Your task to perform on an android device: open app "Pinterest" (install if not already installed) Image 0: 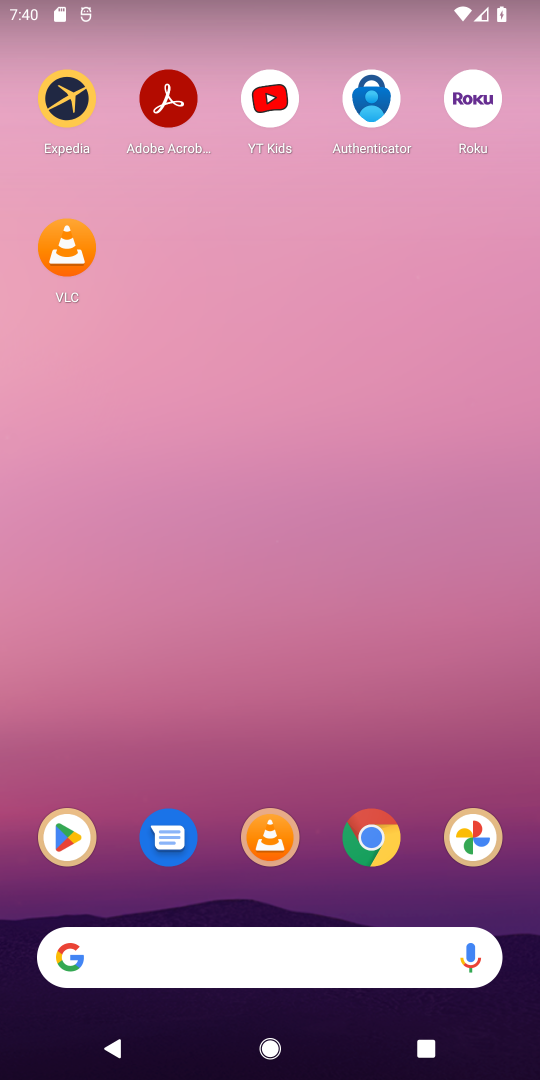
Step 0: click (66, 822)
Your task to perform on an android device: open app "Pinterest" (install if not already installed) Image 1: 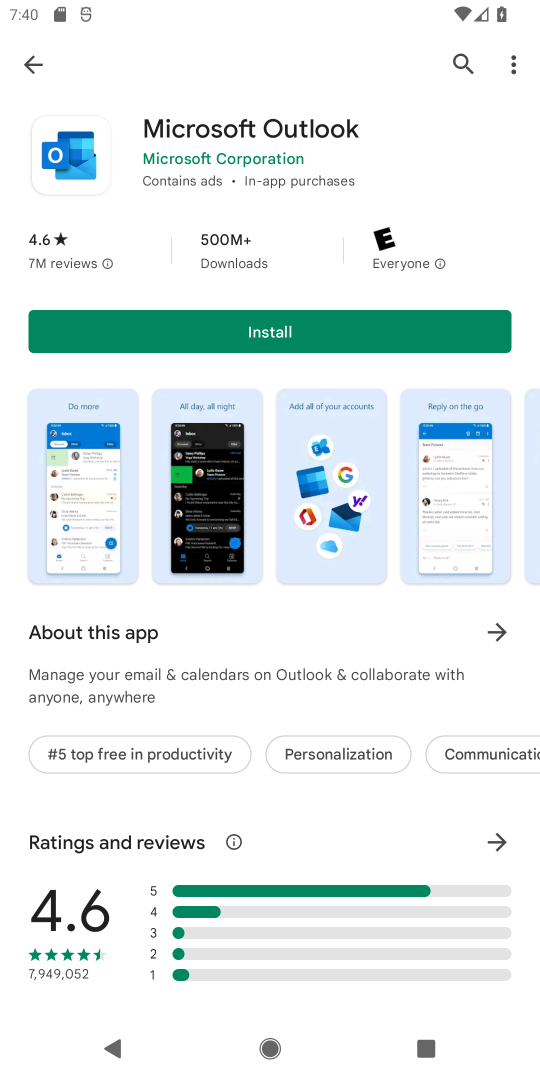
Step 1: click (462, 69)
Your task to perform on an android device: open app "Pinterest" (install if not already installed) Image 2: 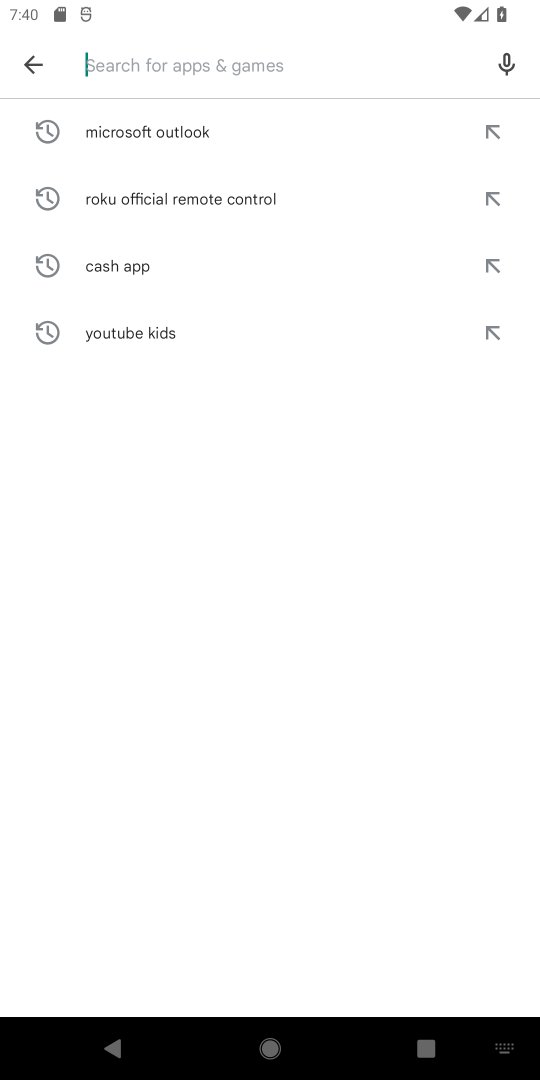
Step 2: type "pinterest"
Your task to perform on an android device: open app "Pinterest" (install if not already installed) Image 3: 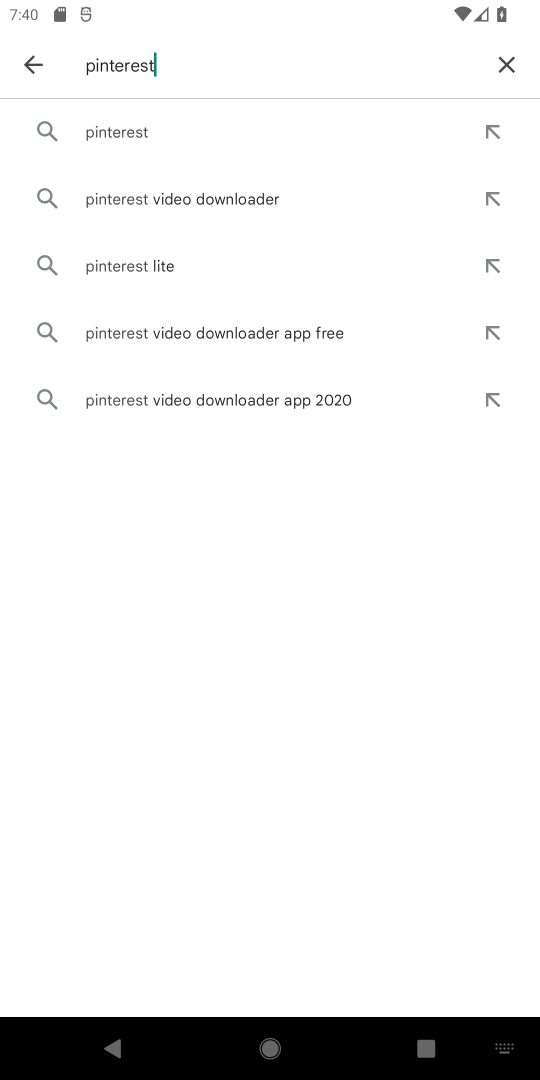
Step 3: click (124, 135)
Your task to perform on an android device: open app "Pinterest" (install if not already installed) Image 4: 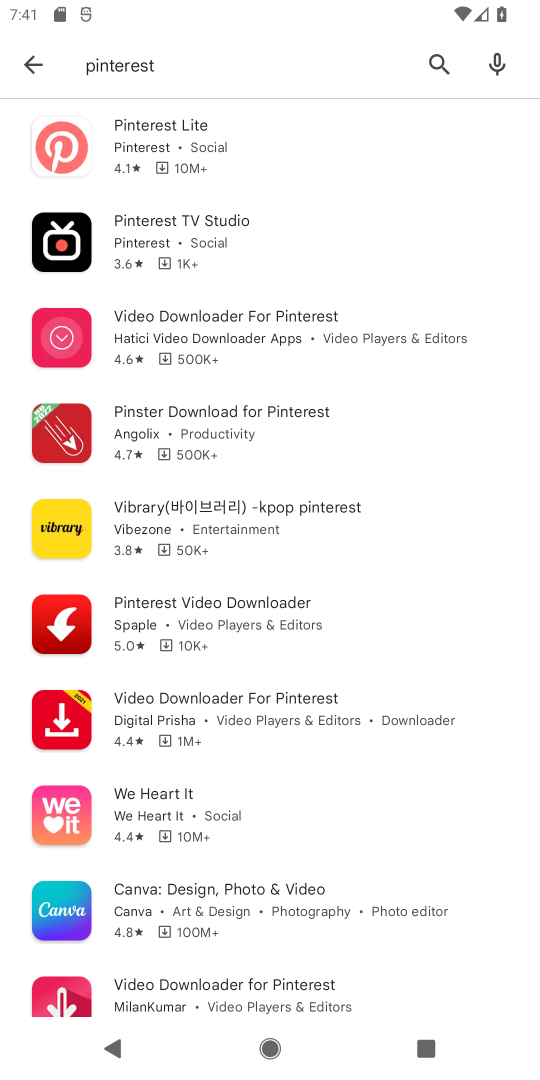
Step 4: task complete